Your task to perform on an android device: open app "File Manager" (install if not already installed) Image 0: 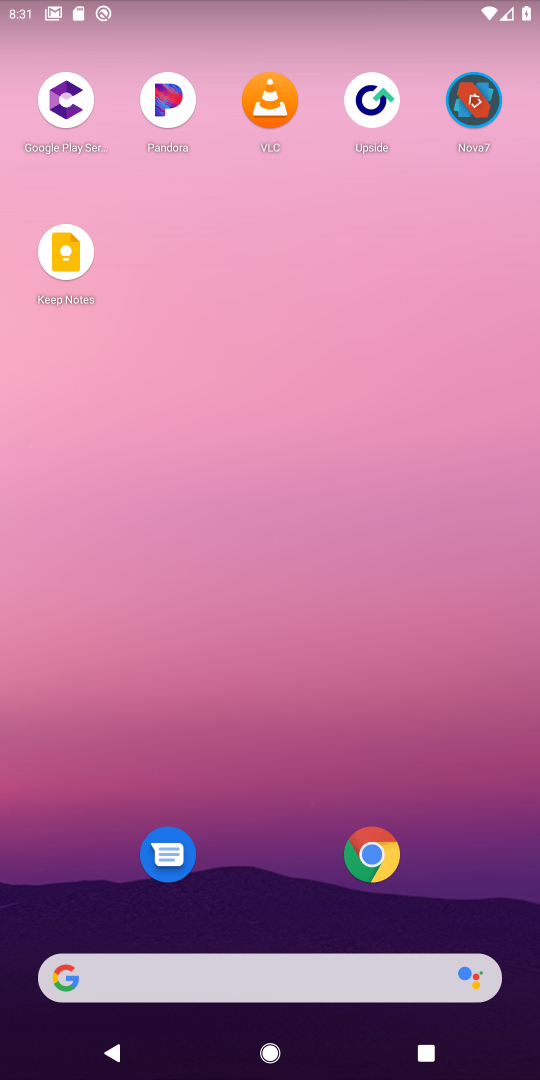
Step 0: drag from (318, 955) to (343, 333)
Your task to perform on an android device: open app "File Manager" (install if not already installed) Image 1: 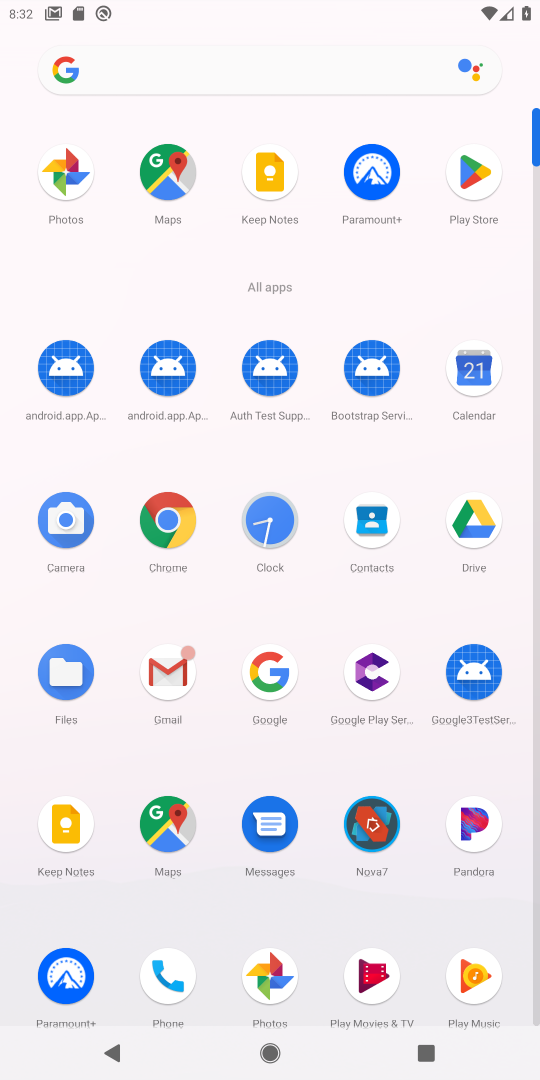
Step 1: click (469, 186)
Your task to perform on an android device: open app "File Manager" (install if not already installed) Image 2: 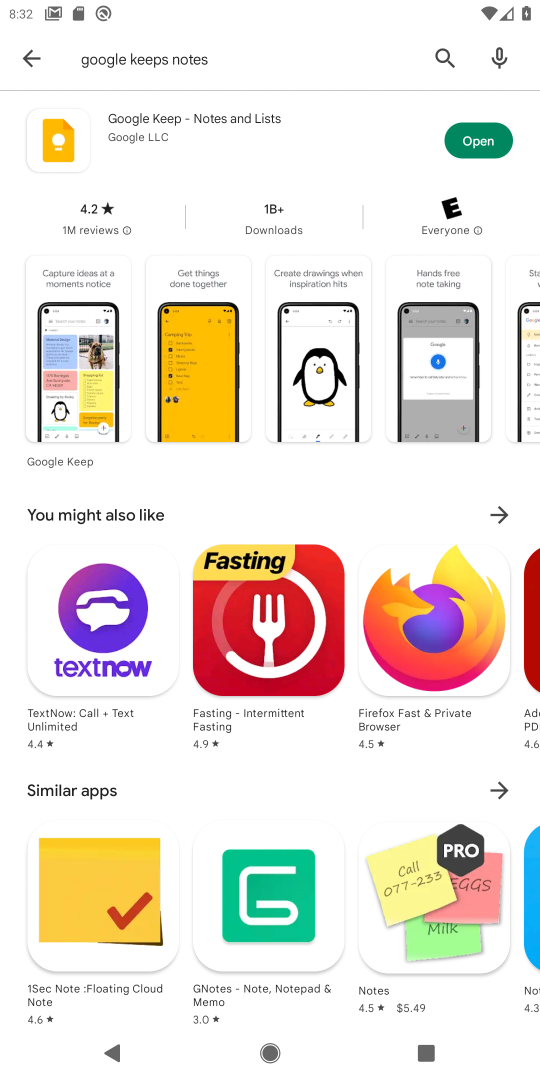
Step 2: click (435, 65)
Your task to perform on an android device: open app "File Manager" (install if not already installed) Image 3: 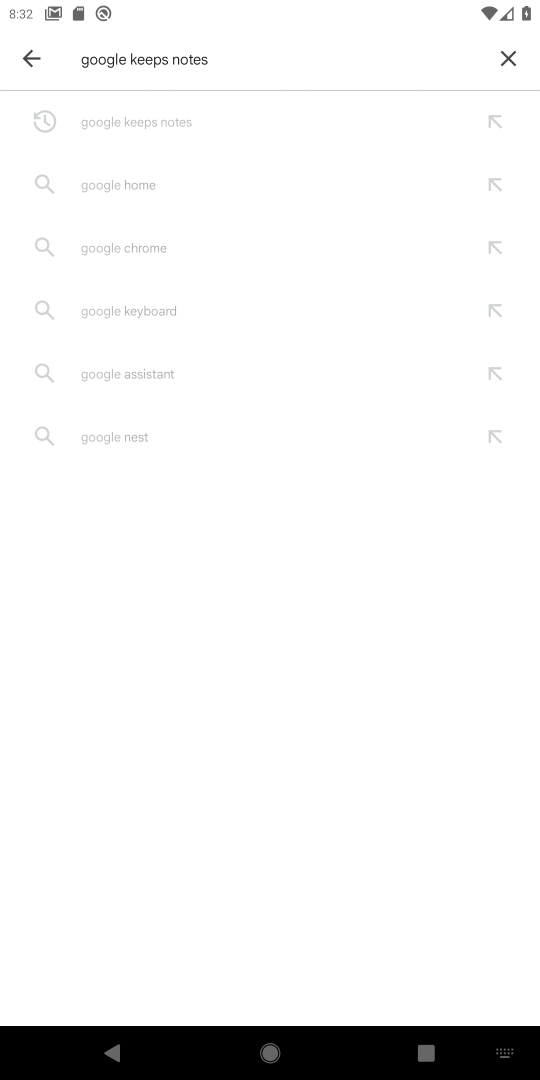
Step 3: click (502, 65)
Your task to perform on an android device: open app "File Manager" (install if not already installed) Image 4: 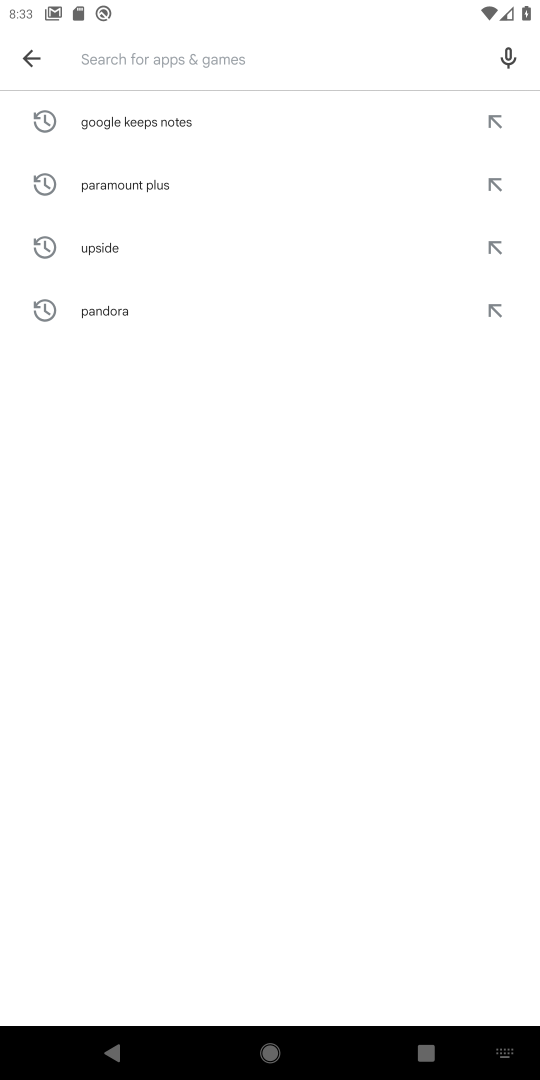
Step 4: type "file manager"
Your task to perform on an android device: open app "File Manager" (install if not already installed) Image 5: 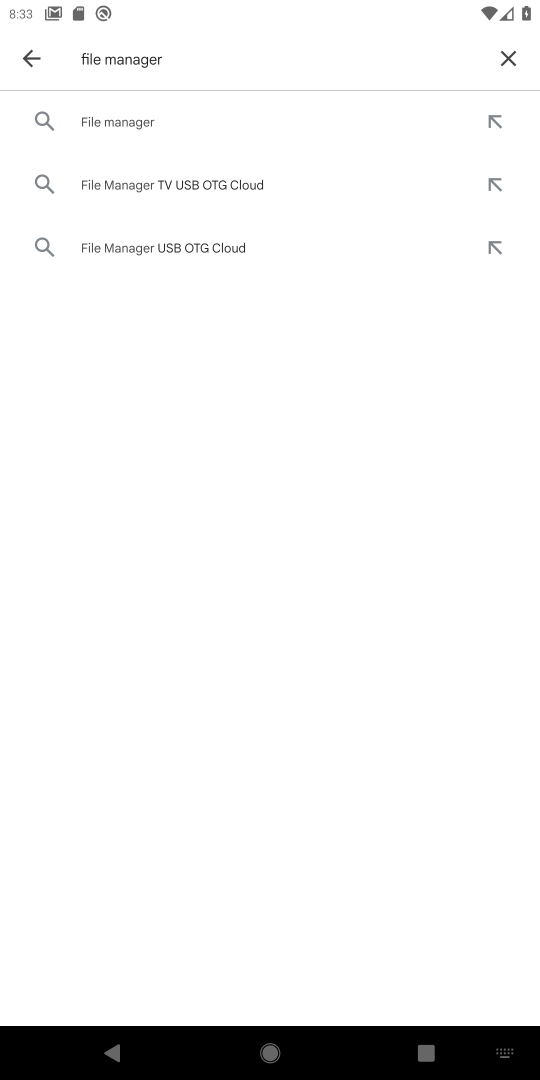
Step 5: click (174, 110)
Your task to perform on an android device: open app "File Manager" (install if not already installed) Image 6: 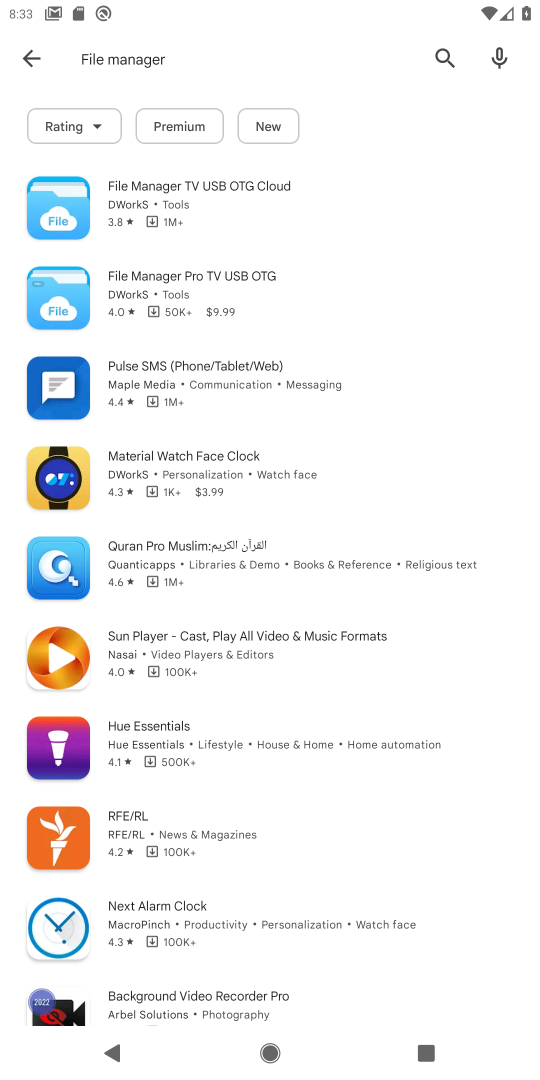
Step 6: click (329, 202)
Your task to perform on an android device: open app "File Manager" (install if not already installed) Image 7: 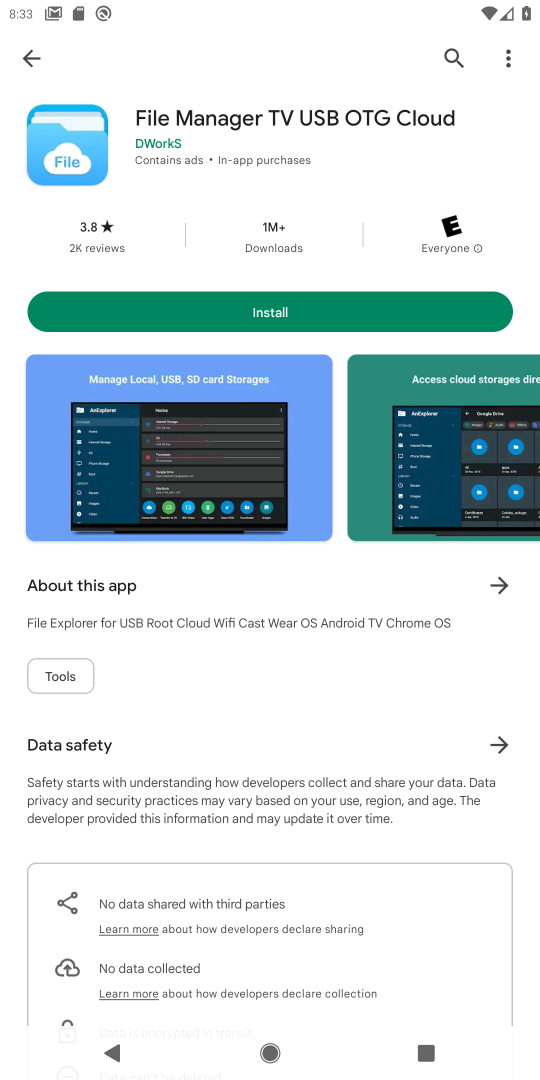
Step 7: click (302, 336)
Your task to perform on an android device: open app "File Manager" (install if not already installed) Image 8: 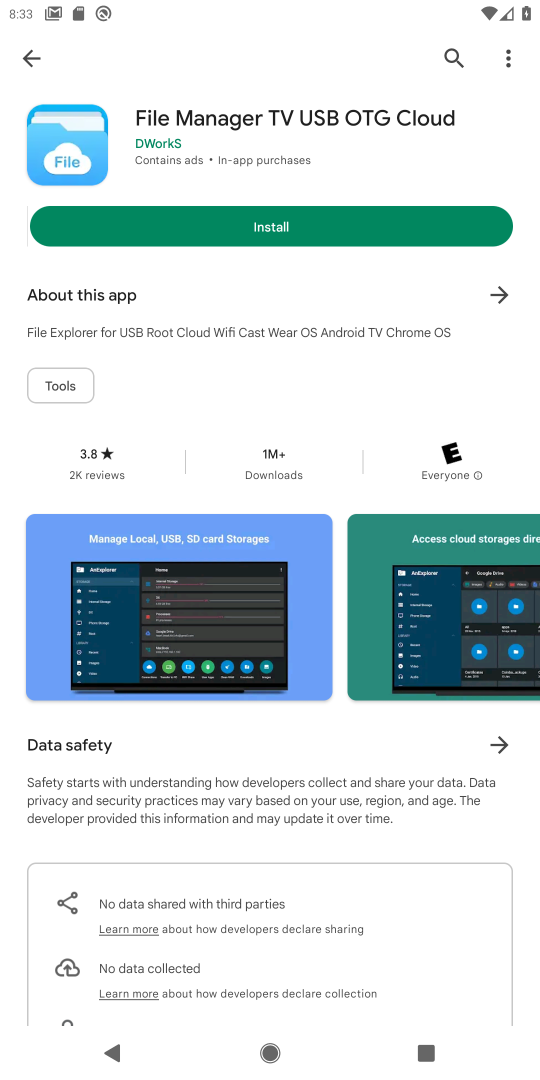
Step 8: task complete